Your task to perform on an android device: move a message to another label in the gmail app Image 0: 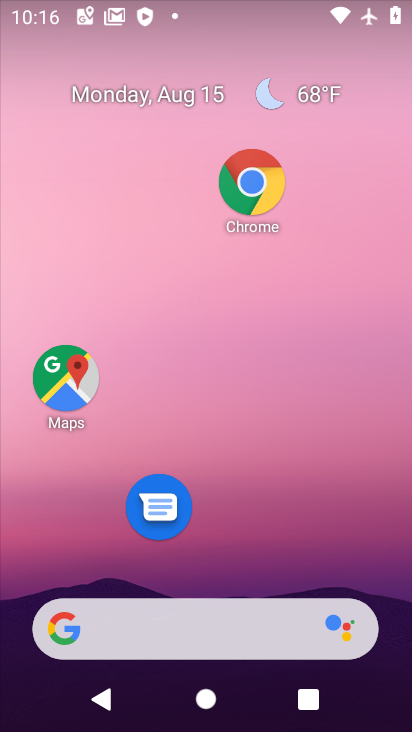
Step 0: drag from (307, 594) to (320, 8)
Your task to perform on an android device: move a message to another label in the gmail app Image 1: 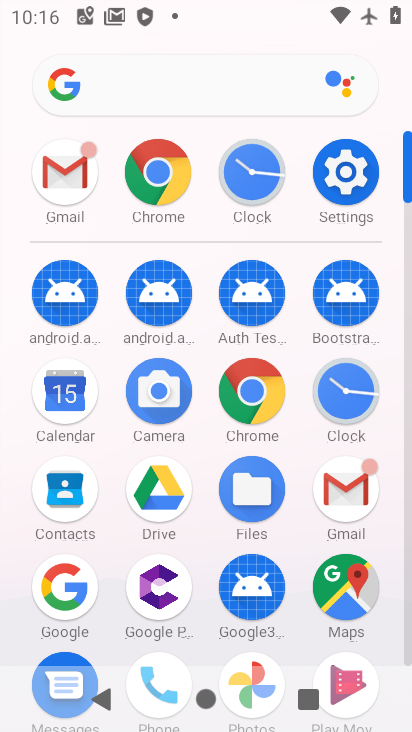
Step 1: click (68, 172)
Your task to perform on an android device: move a message to another label in the gmail app Image 2: 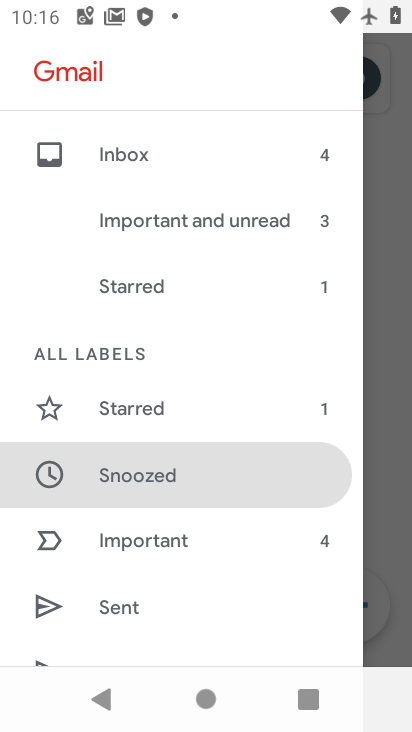
Step 2: task complete